Your task to perform on an android device: Open Reddit.com Image 0: 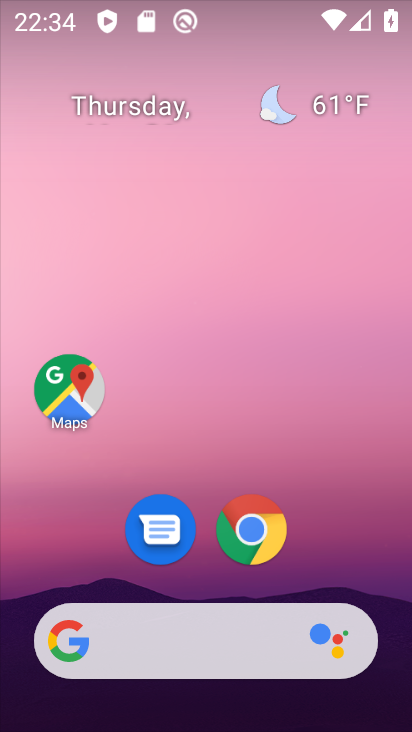
Step 0: drag from (340, 555) to (322, 17)
Your task to perform on an android device: Open Reddit.com Image 1: 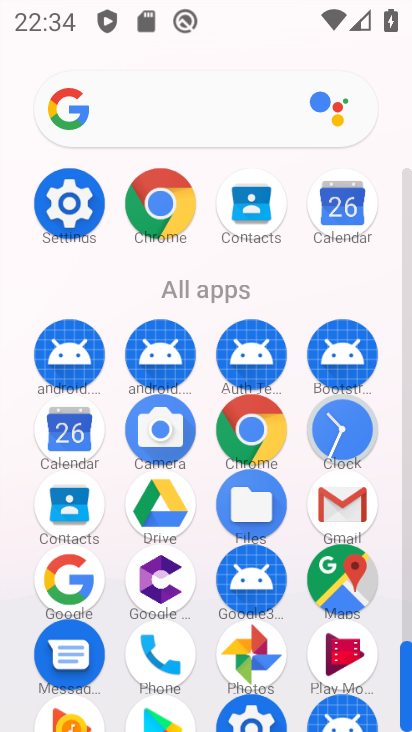
Step 1: click (184, 204)
Your task to perform on an android device: Open Reddit.com Image 2: 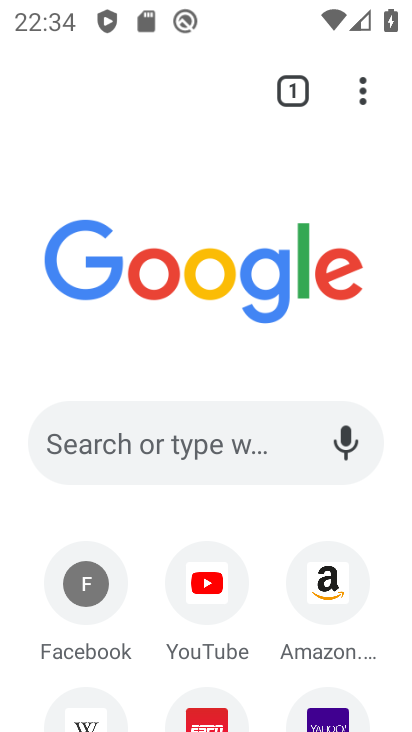
Step 2: click (174, 425)
Your task to perform on an android device: Open Reddit.com Image 3: 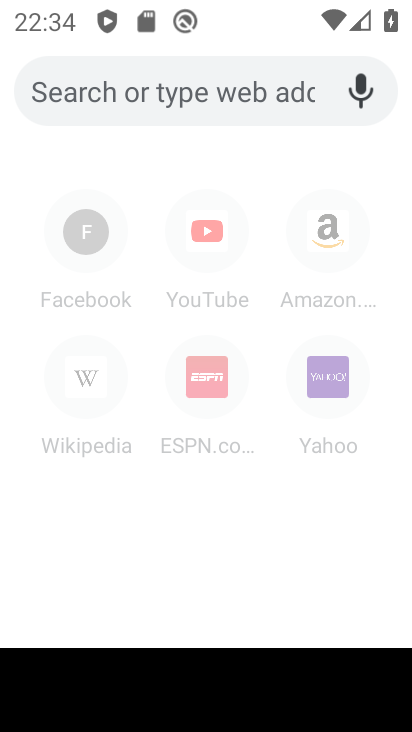
Step 3: type "reddit.com"
Your task to perform on an android device: Open Reddit.com Image 4: 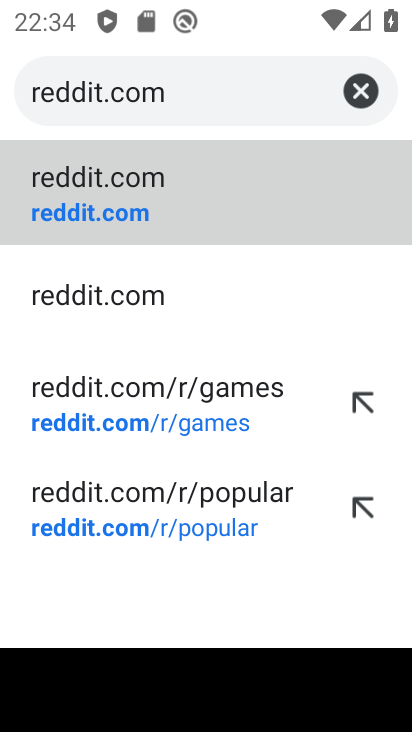
Step 4: click (167, 193)
Your task to perform on an android device: Open Reddit.com Image 5: 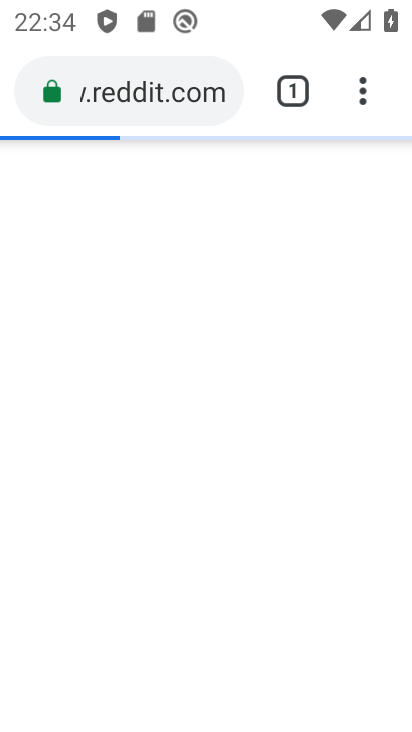
Step 5: task complete